Your task to perform on an android device: Show me the alarms in the clock app Image 0: 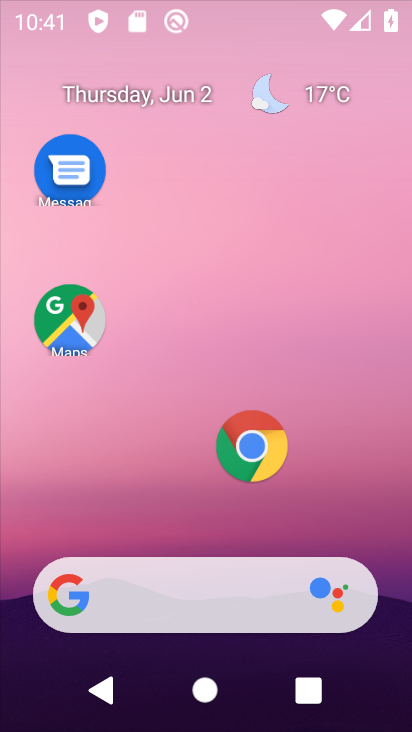
Step 0: press home button
Your task to perform on an android device: Show me the alarms in the clock app Image 1: 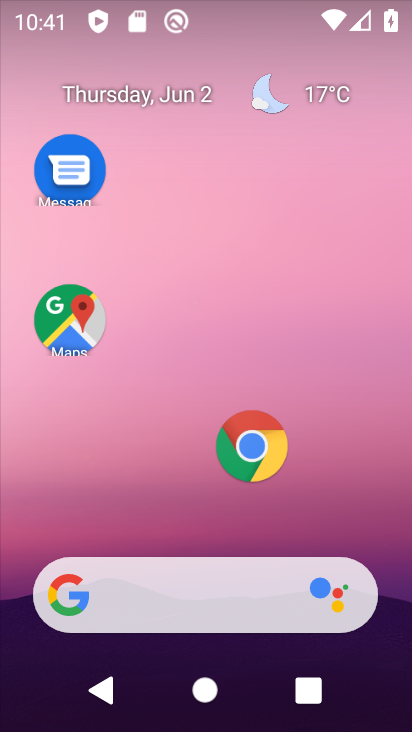
Step 1: drag from (360, 523) to (339, 9)
Your task to perform on an android device: Show me the alarms in the clock app Image 2: 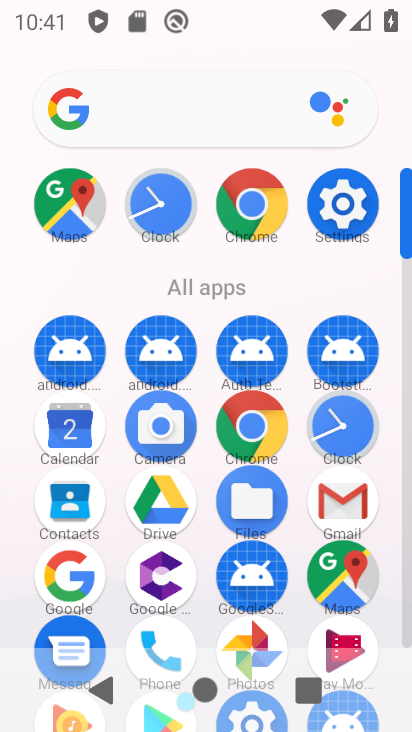
Step 2: click (333, 392)
Your task to perform on an android device: Show me the alarms in the clock app Image 3: 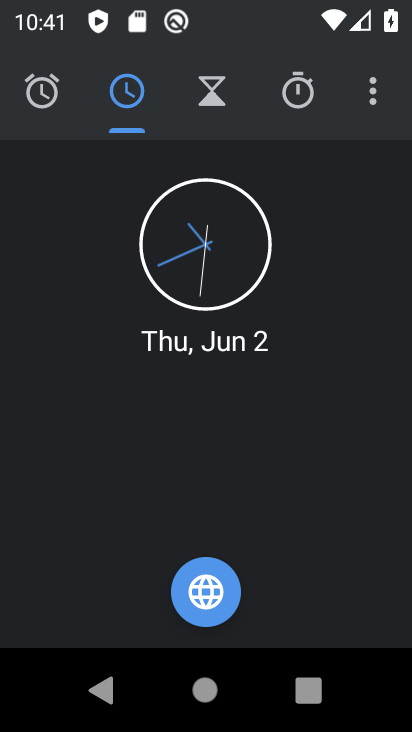
Step 3: click (26, 114)
Your task to perform on an android device: Show me the alarms in the clock app Image 4: 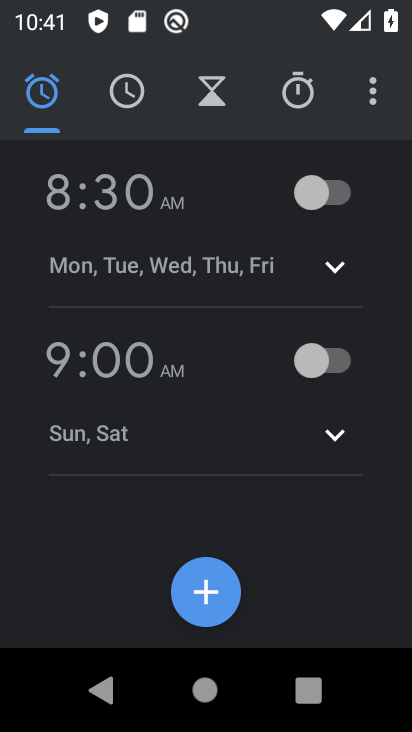
Step 4: task complete